Your task to perform on an android device: uninstall "Clock" Image 0: 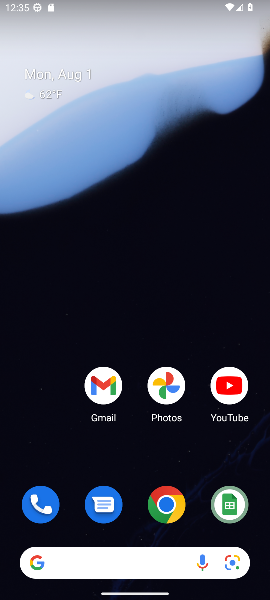
Step 0: drag from (143, 552) to (208, 89)
Your task to perform on an android device: uninstall "Clock" Image 1: 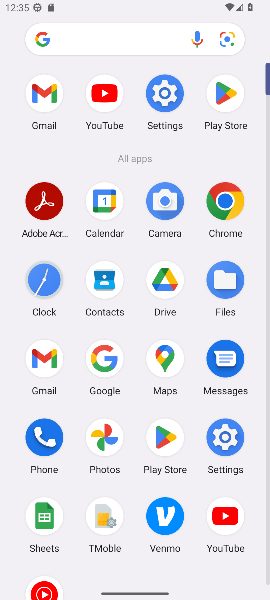
Step 1: click (227, 97)
Your task to perform on an android device: uninstall "Clock" Image 2: 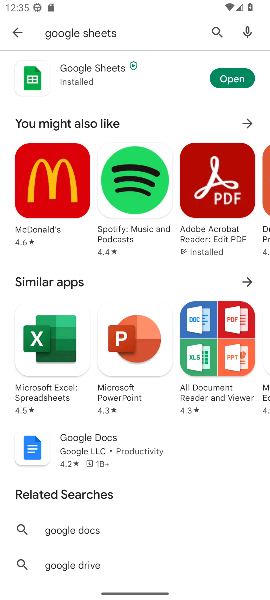
Step 2: click (210, 31)
Your task to perform on an android device: uninstall "Clock" Image 3: 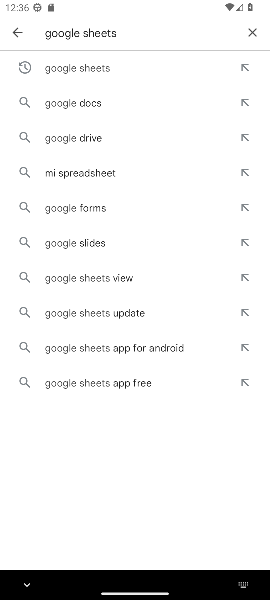
Step 3: click (242, 29)
Your task to perform on an android device: uninstall "Clock" Image 4: 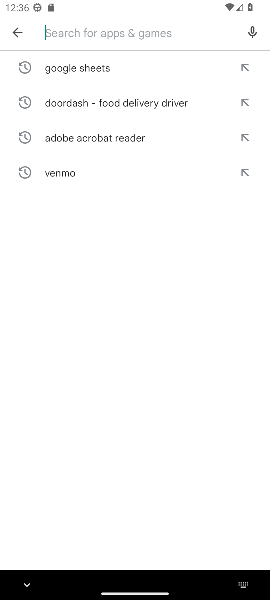
Step 4: type "clock"
Your task to perform on an android device: uninstall "Clock" Image 5: 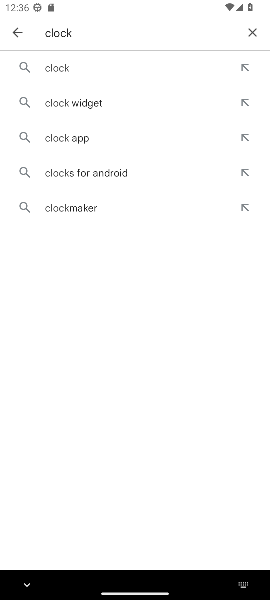
Step 5: click (56, 72)
Your task to perform on an android device: uninstall "Clock" Image 6: 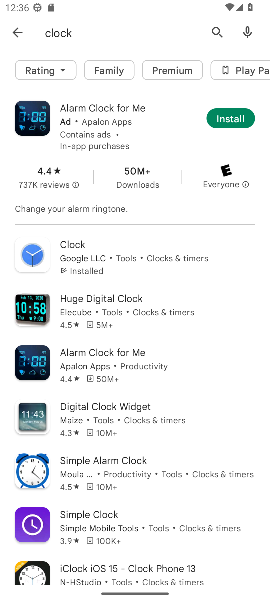
Step 6: click (122, 242)
Your task to perform on an android device: uninstall "Clock" Image 7: 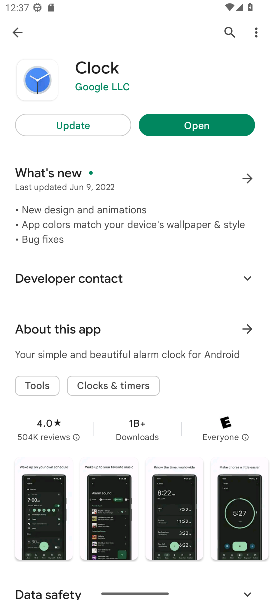
Step 7: task complete